Your task to perform on an android device: toggle sleep mode Image 0: 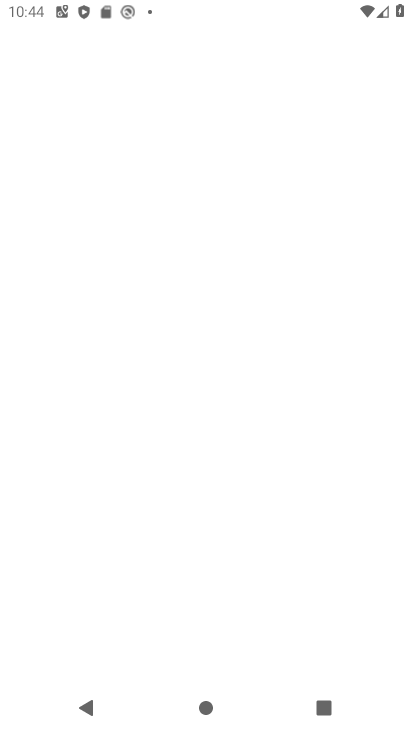
Step 0: press home button
Your task to perform on an android device: toggle sleep mode Image 1: 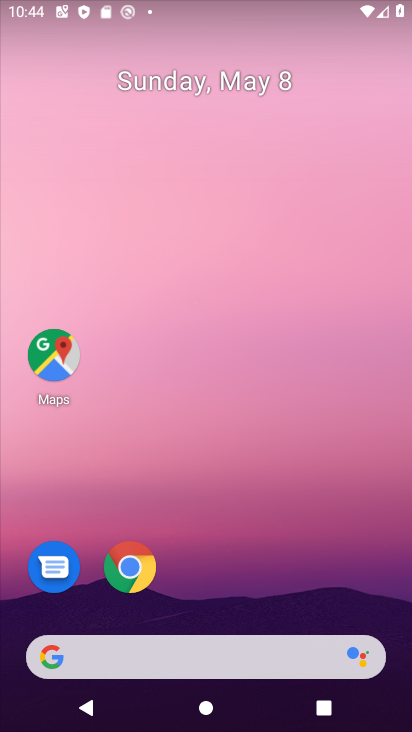
Step 1: drag from (230, 612) to (248, 100)
Your task to perform on an android device: toggle sleep mode Image 2: 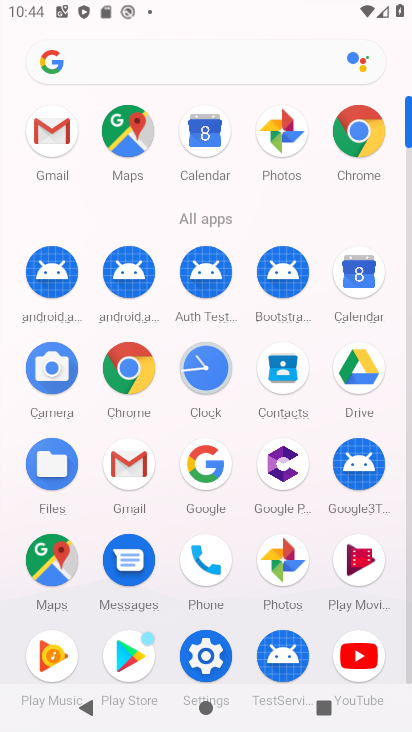
Step 2: click (203, 647)
Your task to perform on an android device: toggle sleep mode Image 3: 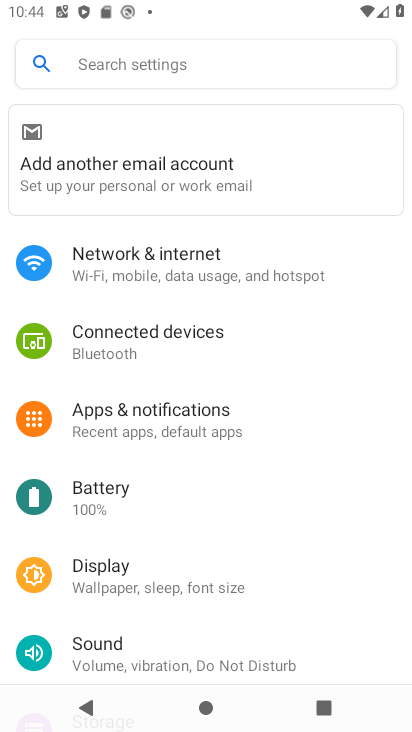
Step 3: click (141, 571)
Your task to perform on an android device: toggle sleep mode Image 4: 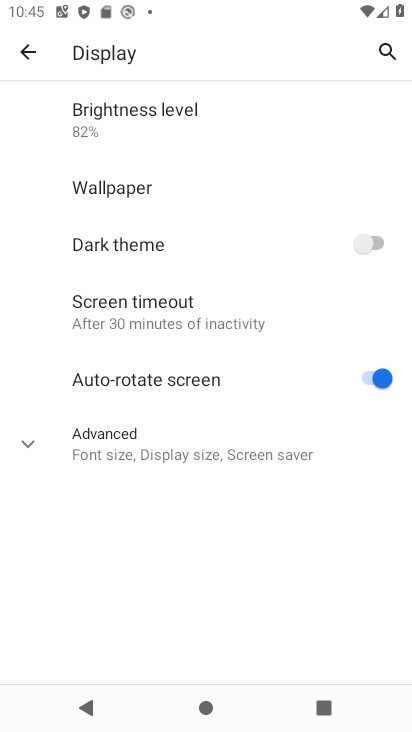
Step 4: click (30, 440)
Your task to perform on an android device: toggle sleep mode Image 5: 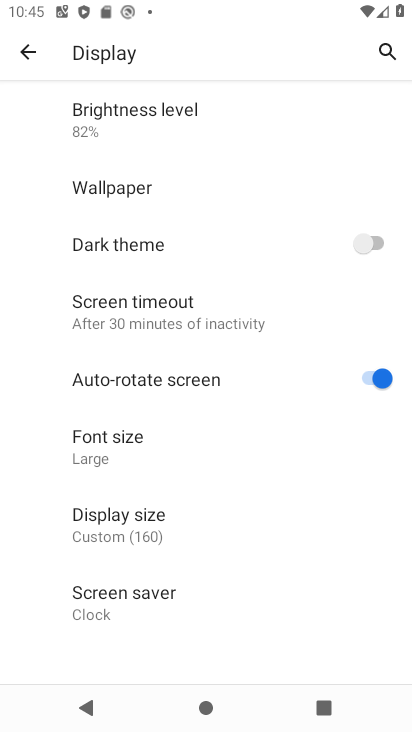
Step 5: task complete